Your task to perform on an android device: check android version Image 0: 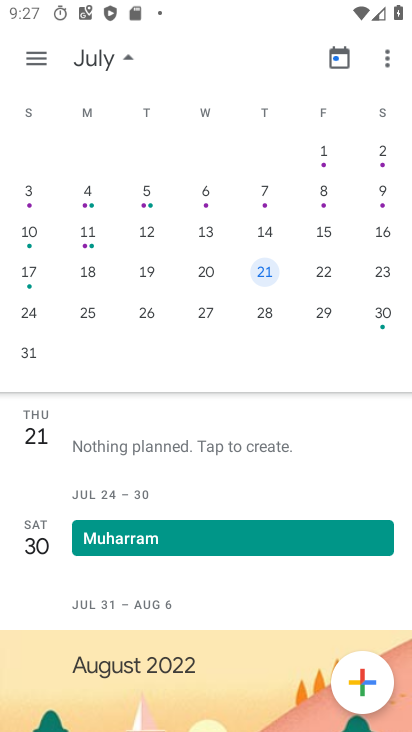
Step 0: press home button
Your task to perform on an android device: check android version Image 1: 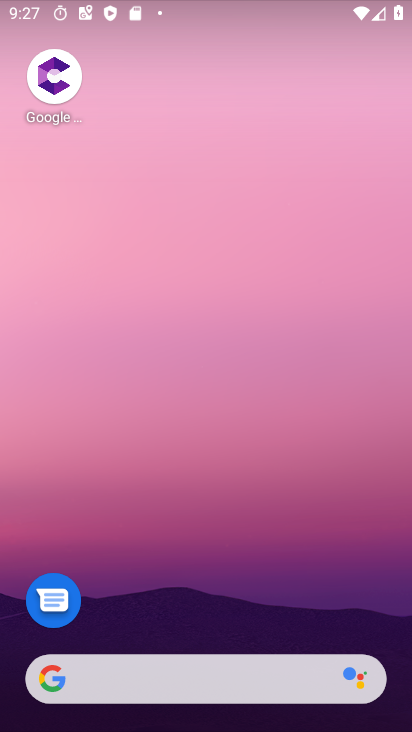
Step 1: drag from (214, 611) to (210, 100)
Your task to perform on an android device: check android version Image 2: 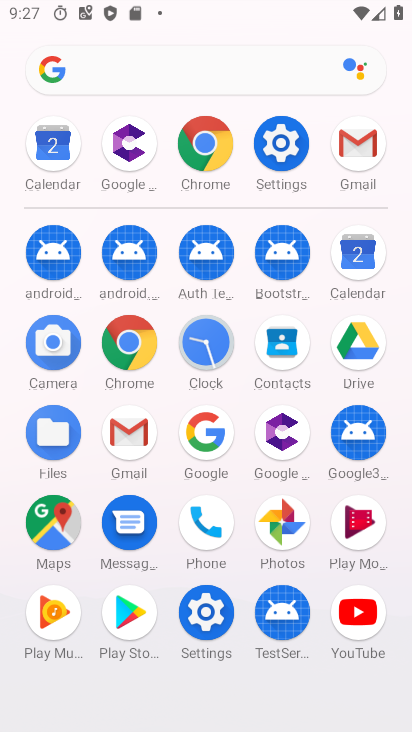
Step 2: click (275, 147)
Your task to perform on an android device: check android version Image 3: 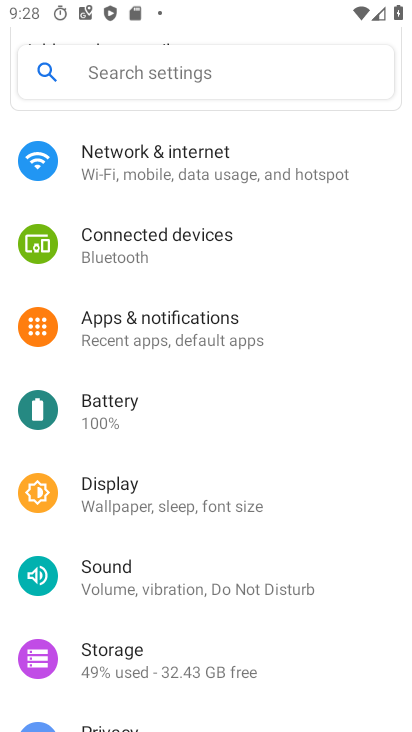
Step 3: drag from (221, 582) to (220, 10)
Your task to perform on an android device: check android version Image 4: 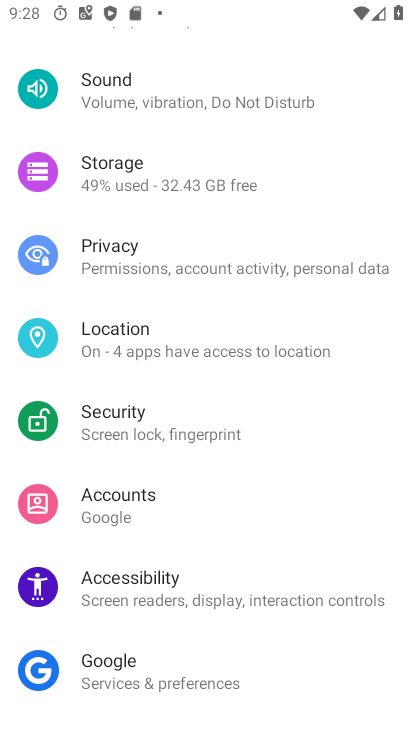
Step 4: drag from (153, 677) to (178, 67)
Your task to perform on an android device: check android version Image 5: 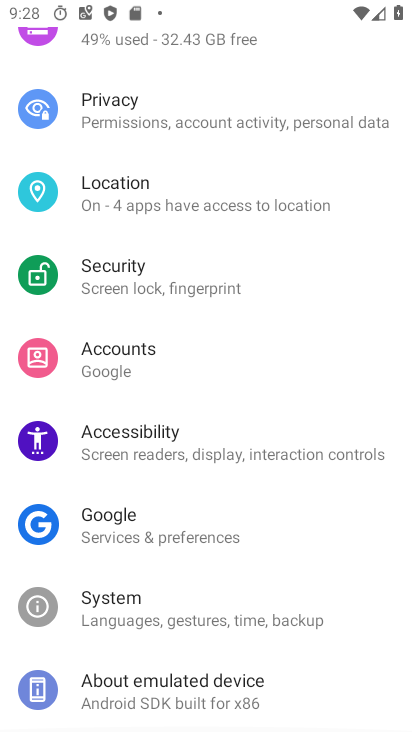
Step 5: click (121, 682)
Your task to perform on an android device: check android version Image 6: 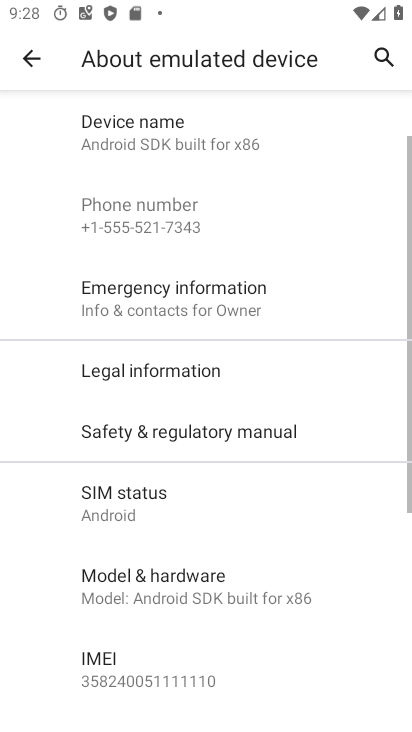
Step 6: drag from (190, 656) to (185, 156)
Your task to perform on an android device: check android version Image 7: 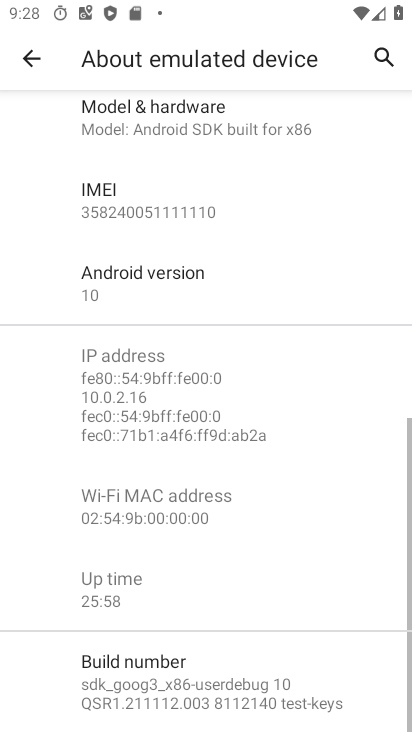
Step 7: click (166, 284)
Your task to perform on an android device: check android version Image 8: 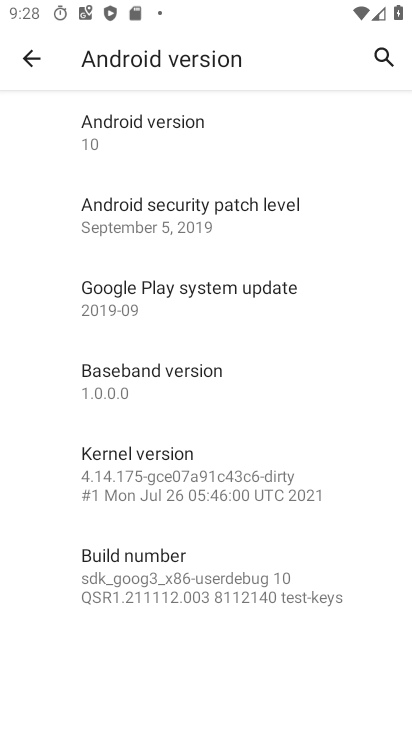
Step 8: click (159, 140)
Your task to perform on an android device: check android version Image 9: 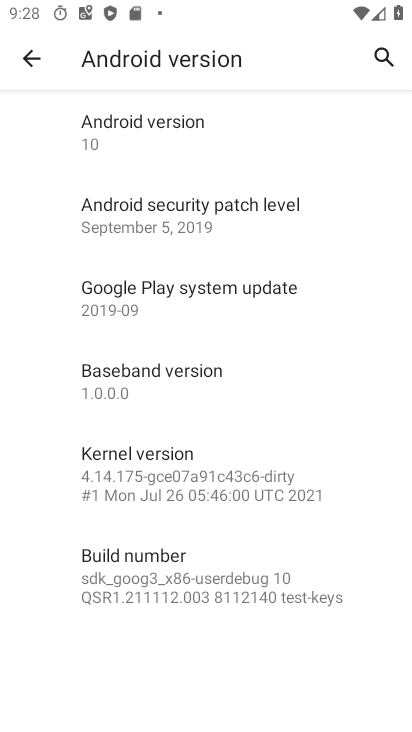
Step 9: task complete